Your task to perform on an android device: turn on airplane mode Image 0: 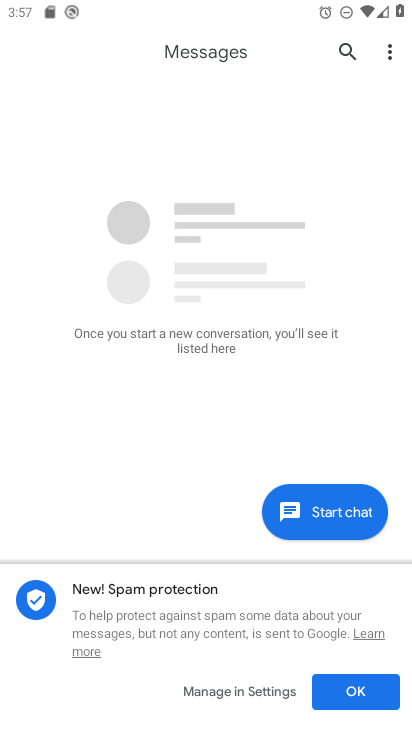
Step 0: press home button
Your task to perform on an android device: turn on airplane mode Image 1: 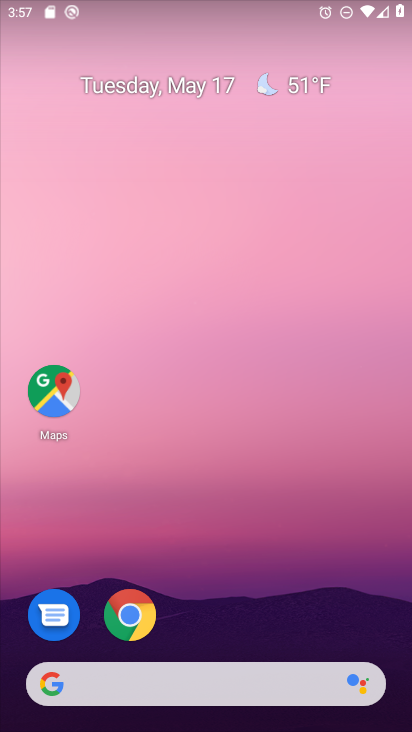
Step 1: drag from (243, 6) to (239, 511)
Your task to perform on an android device: turn on airplane mode Image 2: 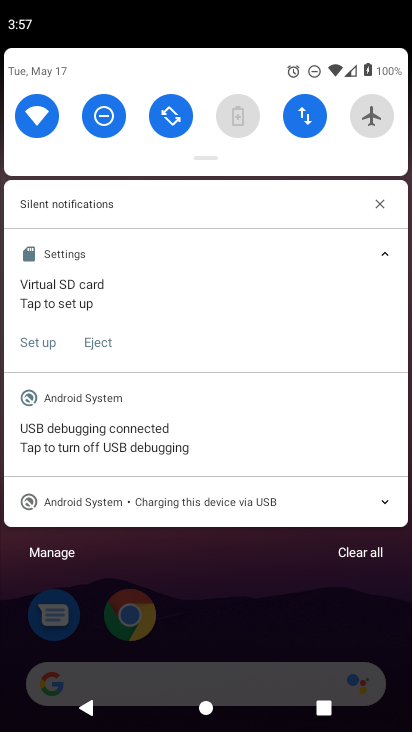
Step 2: click (376, 110)
Your task to perform on an android device: turn on airplane mode Image 3: 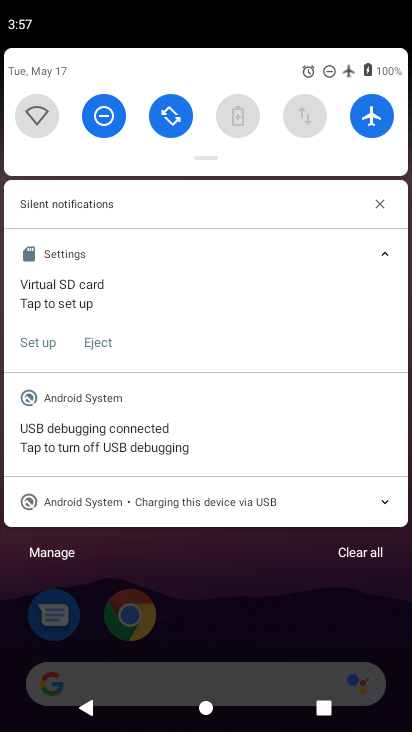
Step 3: task complete